Your task to perform on an android device: stop showing notifications on the lock screen Image 0: 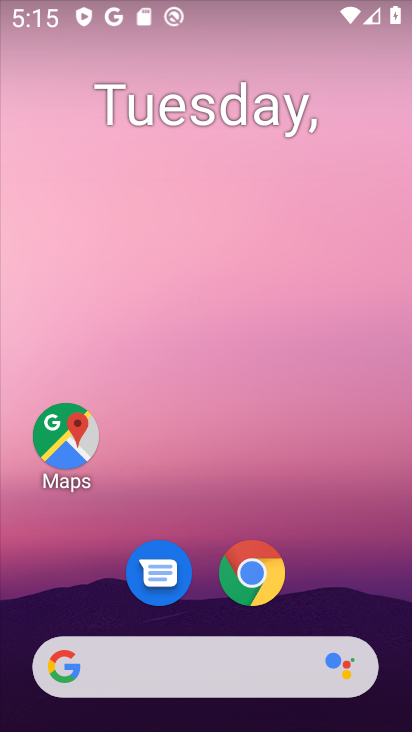
Step 0: drag from (315, 542) to (248, 36)
Your task to perform on an android device: stop showing notifications on the lock screen Image 1: 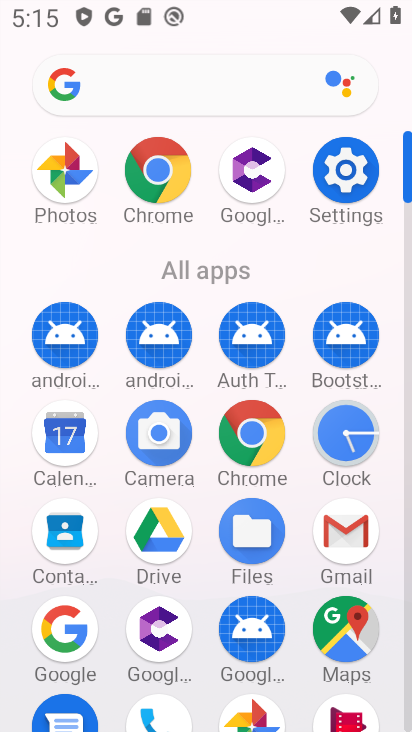
Step 1: drag from (10, 581) to (10, 275)
Your task to perform on an android device: stop showing notifications on the lock screen Image 2: 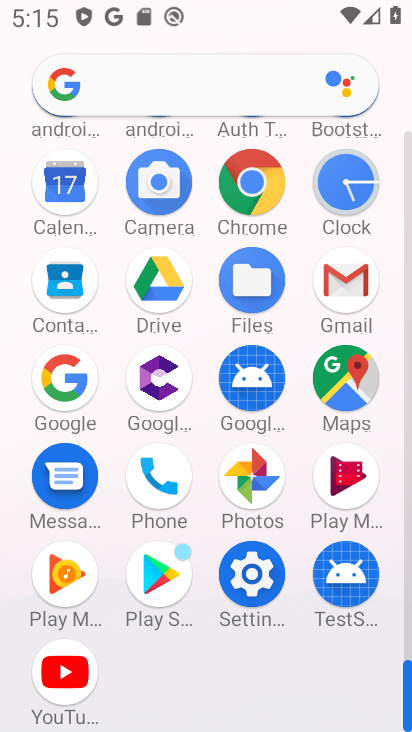
Step 2: drag from (9, 617) to (31, 293)
Your task to perform on an android device: stop showing notifications on the lock screen Image 3: 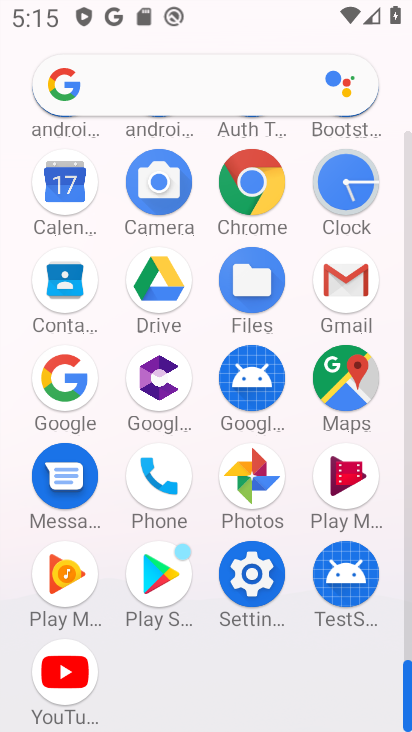
Step 3: drag from (7, 210) to (30, 553)
Your task to perform on an android device: stop showing notifications on the lock screen Image 4: 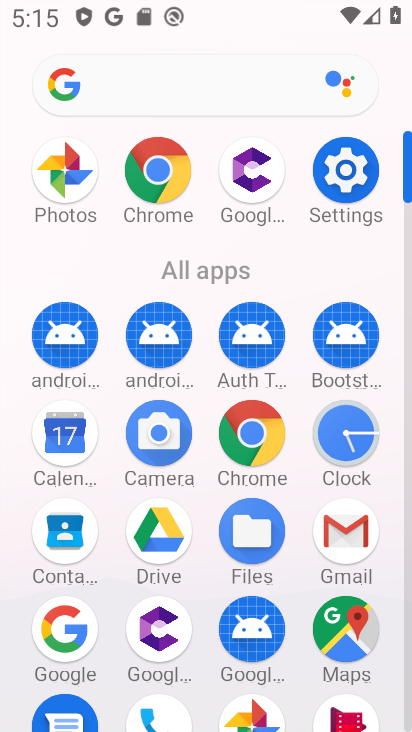
Step 4: drag from (9, 231) to (17, 529)
Your task to perform on an android device: stop showing notifications on the lock screen Image 5: 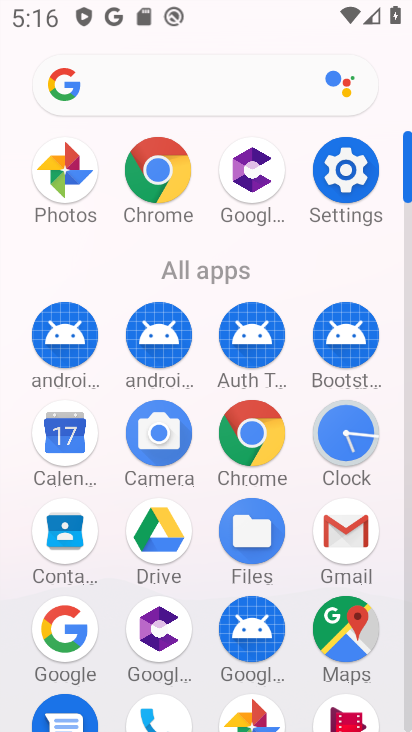
Step 5: click (343, 165)
Your task to perform on an android device: stop showing notifications on the lock screen Image 6: 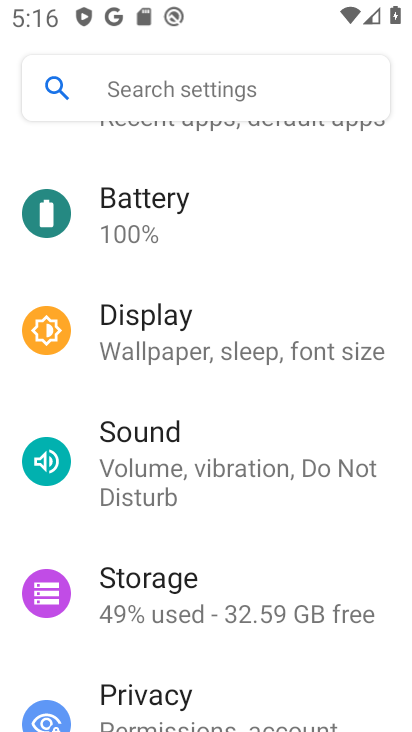
Step 6: drag from (280, 512) to (299, 178)
Your task to perform on an android device: stop showing notifications on the lock screen Image 7: 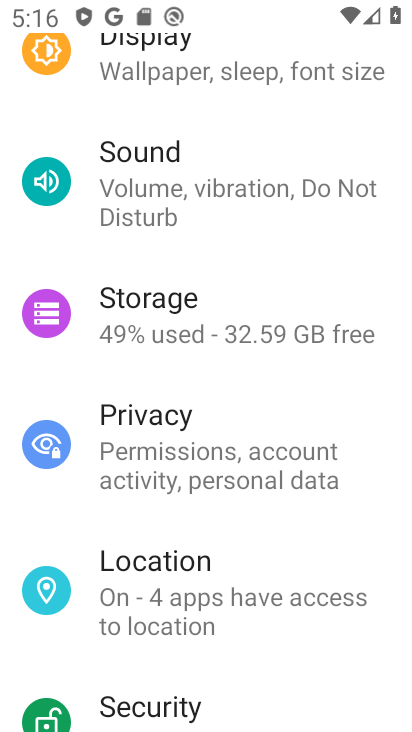
Step 7: drag from (294, 170) to (266, 498)
Your task to perform on an android device: stop showing notifications on the lock screen Image 8: 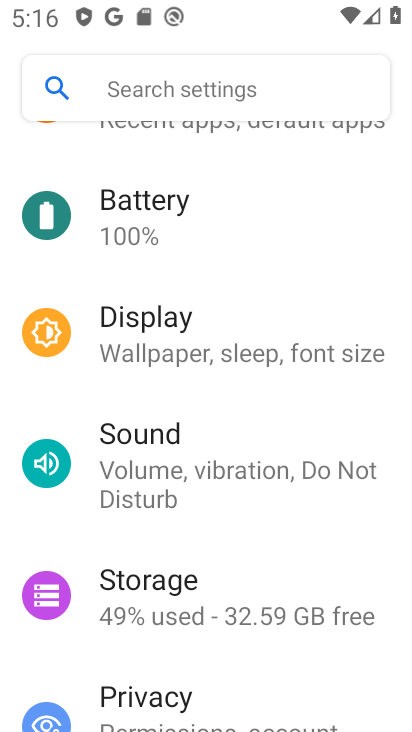
Step 8: drag from (278, 270) to (253, 570)
Your task to perform on an android device: stop showing notifications on the lock screen Image 9: 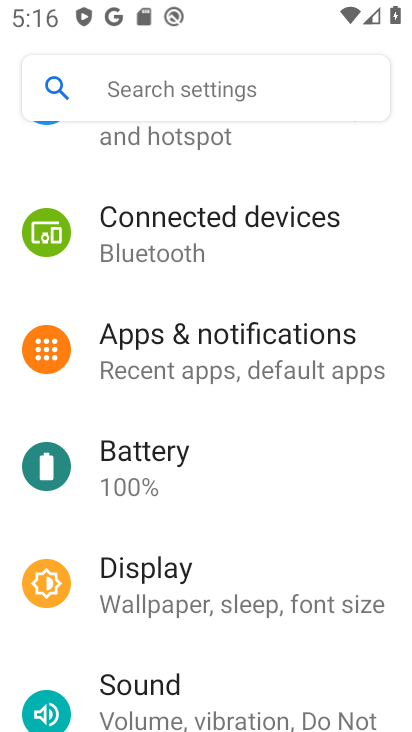
Step 9: click (244, 340)
Your task to perform on an android device: stop showing notifications on the lock screen Image 10: 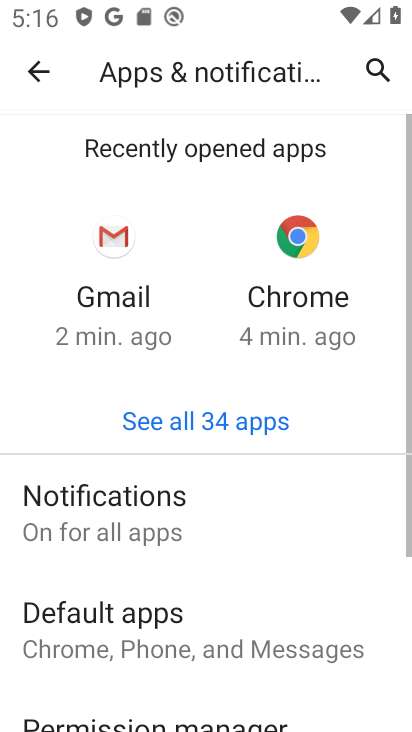
Step 10: drag from (295, 588) to (305, 119)
Your task to perform on an android device: stop showing notifications on the lock screen Image 11: 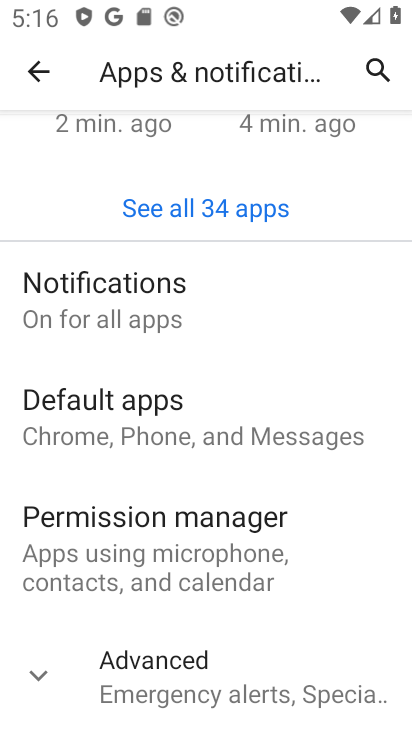
Step 11: click (169, 285)
Your task to perform on an android device: stop showing notifications on the lock screen Image 12: 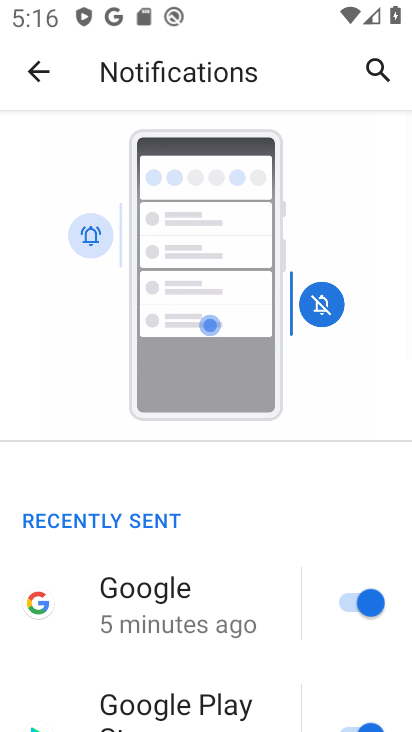
Step 12: drag from (226, 540) to (235, 131)
Your task to perform on an android device: stop showing notifications on the lock screen Image 13: 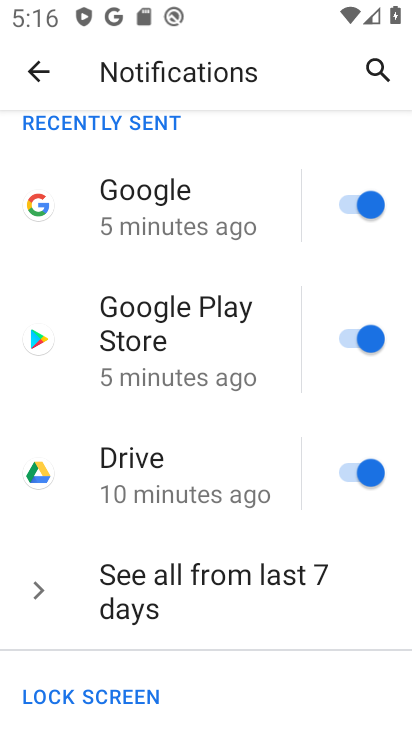
Step 13: drag from (231, 546) to (227, 94)
Your task to perform on an android device: stop showing notifications on the lock screen Image 14: 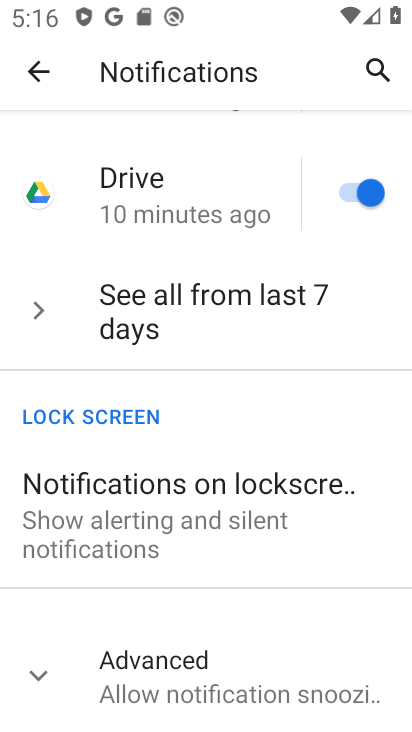
Step 14: click (181, 520)
Your task to perform on an android device: stop showing notifications on the lock screen Image 15: 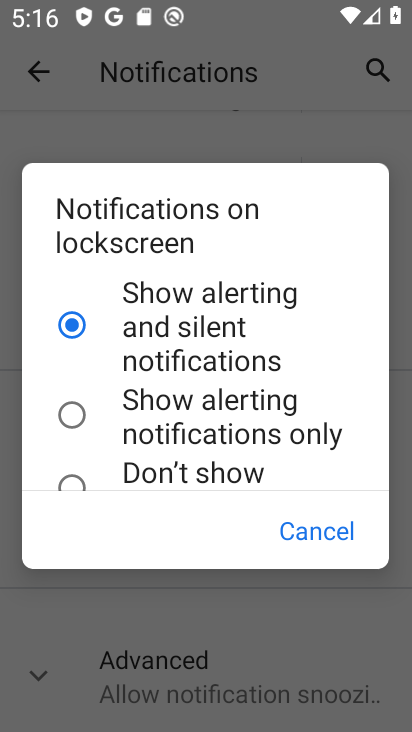
Step 15: drag from (194, 437) to (218, 231)
Your task to perform on an android device: stop showing notifications on the lock screen Image 16: 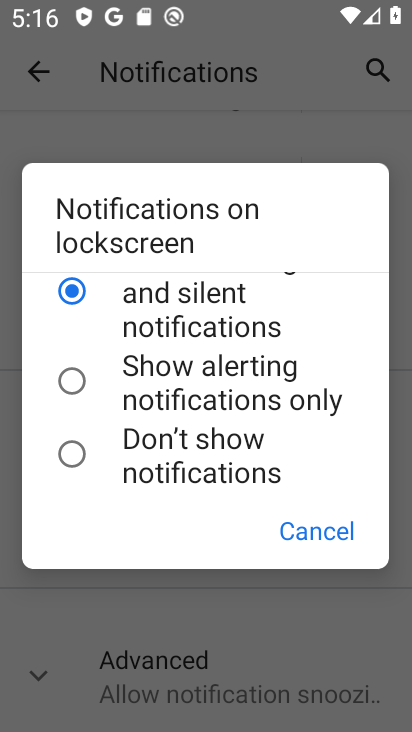
Step 16: drag from (195, 341) to (179, 482)
Your task to perform on an android device: stop showing notifications on the lock screen Image 17: 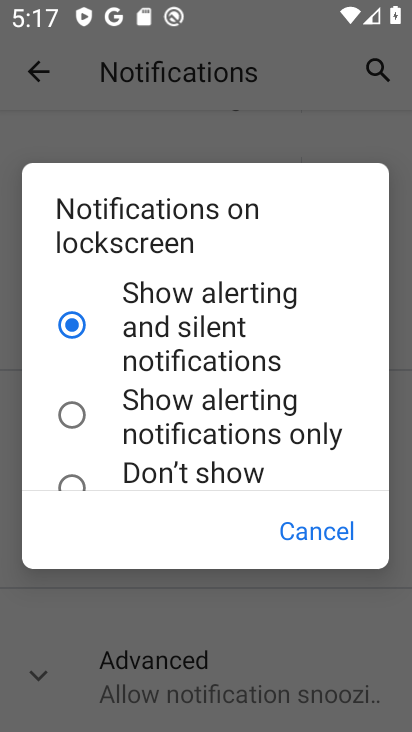
Step 17: drag from (132, 474) to (169, 199)
Your task to perform on an android device: stop showing notifications on the lock screen Image 18: 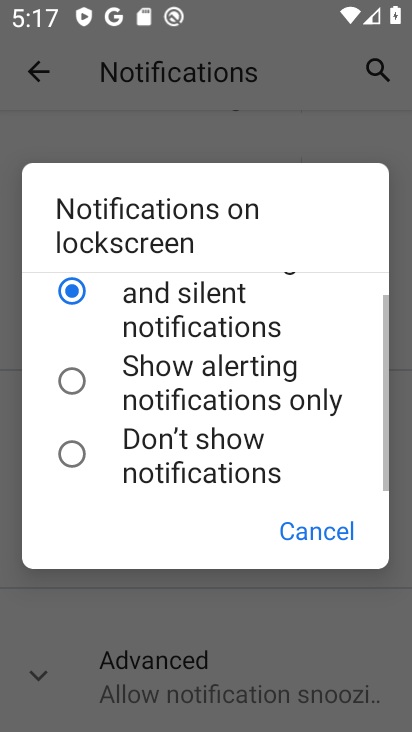
Step 18: click (123, 467)
Your task to perform on an android device: stop showing notifications on the lock screen Image 19: 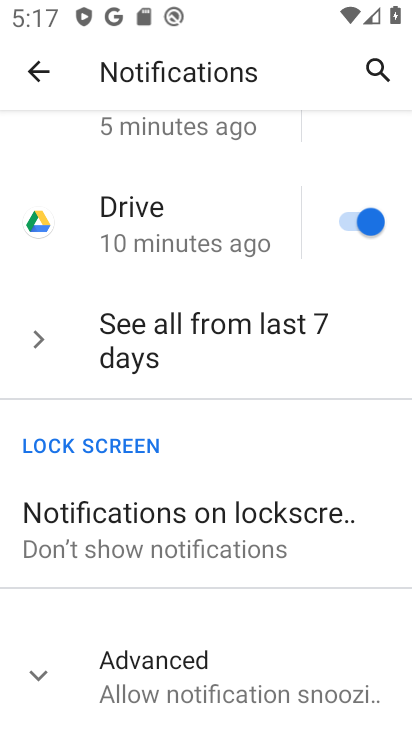
Step 19: click (53, 672)
Your task to perform on an android device: stop showing notifications on the lock screen Image 20: 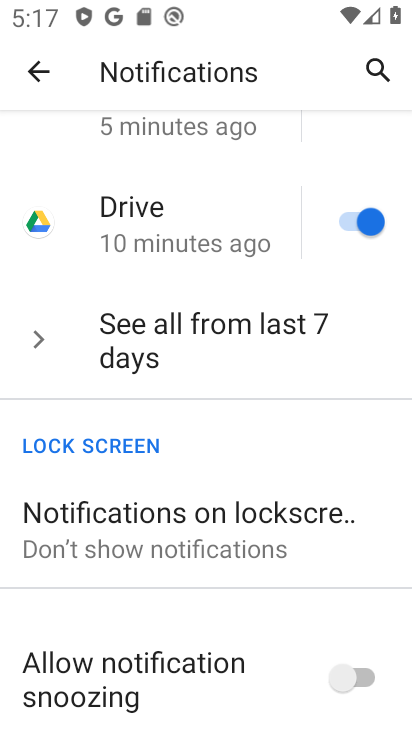
Step 20: task complete